Your task to perform on an android device: Open calendar and show me the third week of next month Image 0: 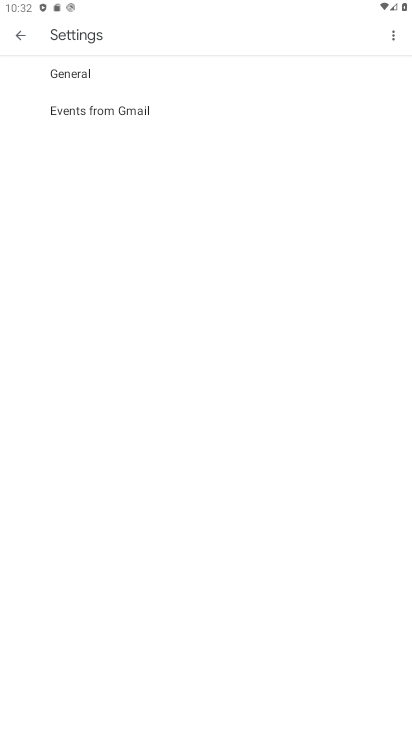
Step 0: press home button
Your task to perform on an android device: Open calendar and show me the third week of next month Image 1: 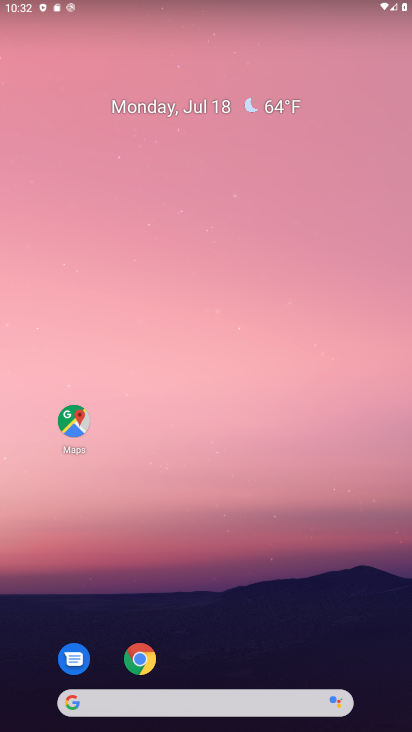
Step 1: drag from (269, 686) to (180, 192)
Your task to perform on an android device: Open calendar and show me the third week of next month Image 2: 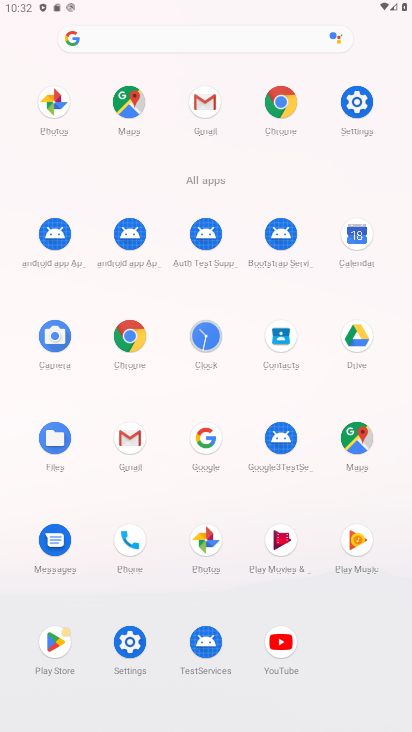
Step 2: click (361, 237)
Your task to perform on an android device: Open calendar and show me the third week of next month Image 3: 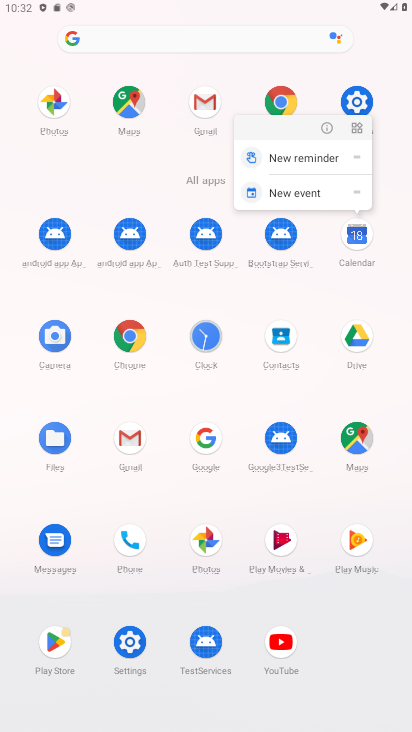
Step 3: click (361, 237)
Your task to perform on an android device: Open calendar and show me the third week of next month Image 4: 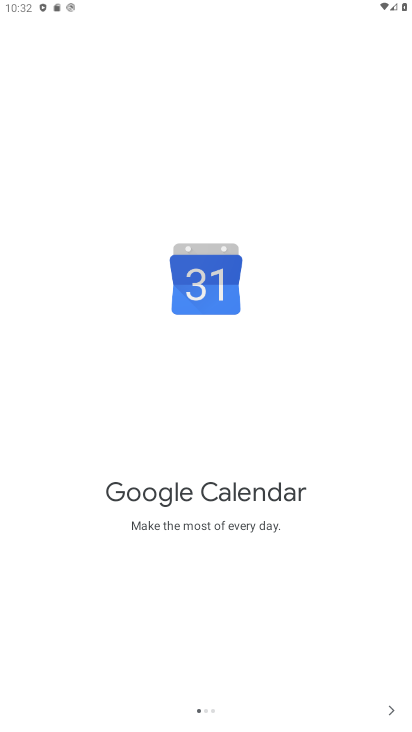
Step 4: click (394, 711)
Your task to perform on an android device: Open calendar and show me the third week of next month Image 5: 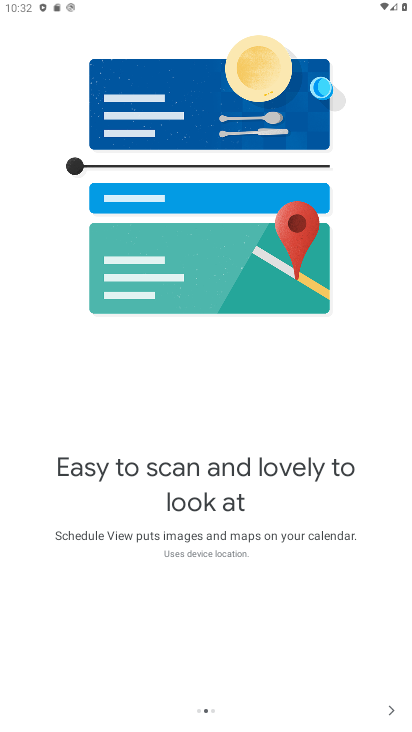
Step 5: click (391, 705)
Your task to perform on an android device: Open calendar and show me the third week of next month Image 6: 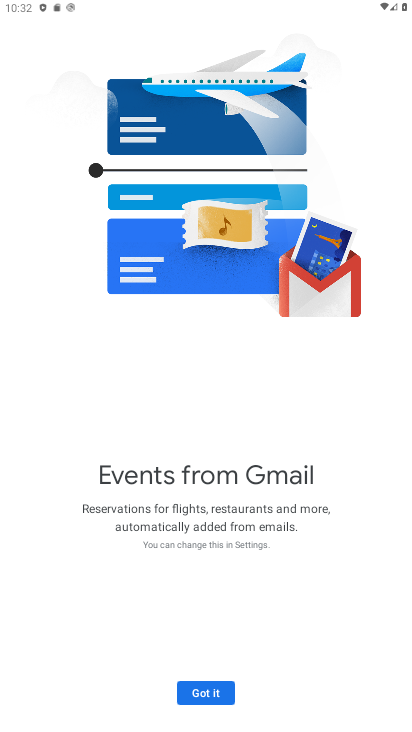
Step 6: click (226, 698)
Your task to perform on an android device: Open calendar and show me the third week of next month Image 7: 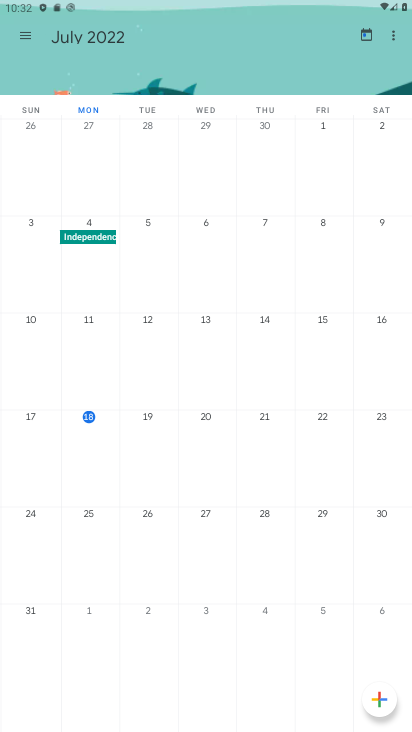
Step 7: drag from (338, 351) to (19, 419)
Your task to perform on an android device: Open calendar and show me the third week of next month Image 8: 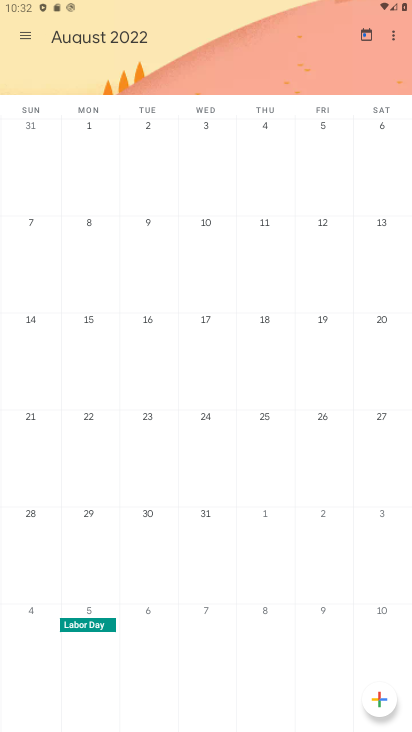
Step 8: click (193, 321)
Your task to perform on an android device: Open calendar and show me the third week of next month Image 9: 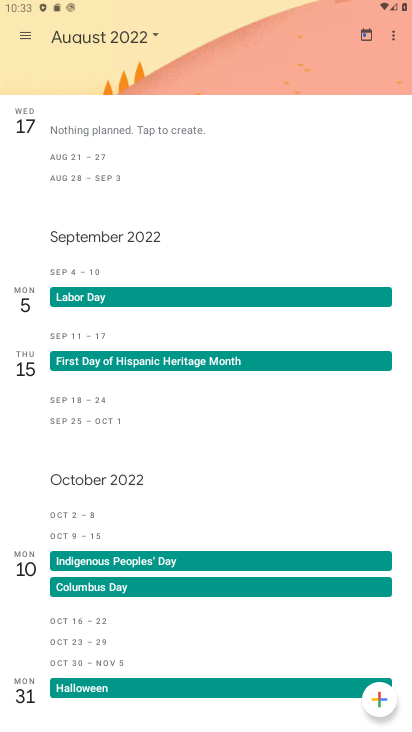
Step 9: task complete